Your task to perform on an android device: toggle location history Image 0: 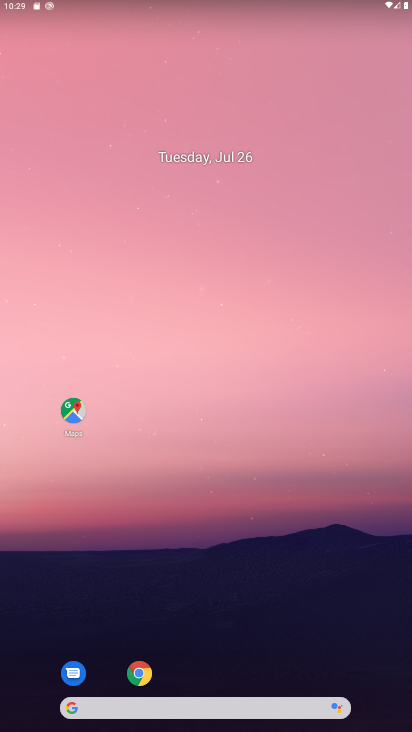
Step 0: drag from (211, 642) to (196, 177)
Your task to perform on an android device: toggle location history Image 1: 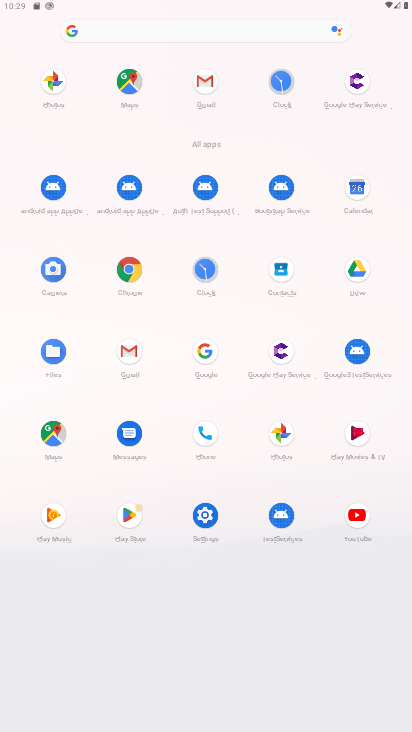
Step 1: click (133, 91)
Your task to perform on an android device: toggle location history Image 2: 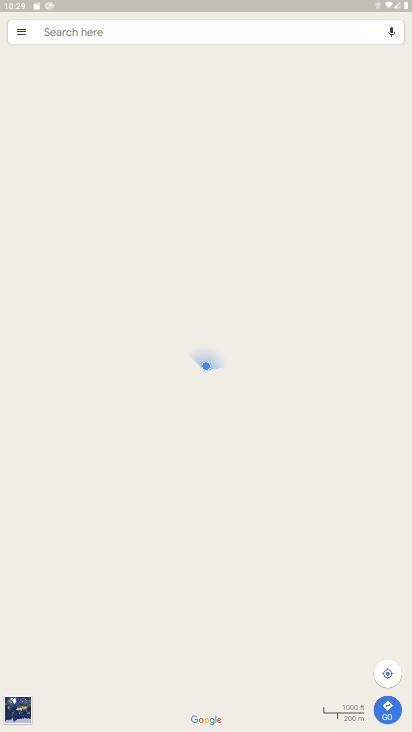
Step 2: click (20, 36)
Your task to perform on an android device: toggle location history Image 3: 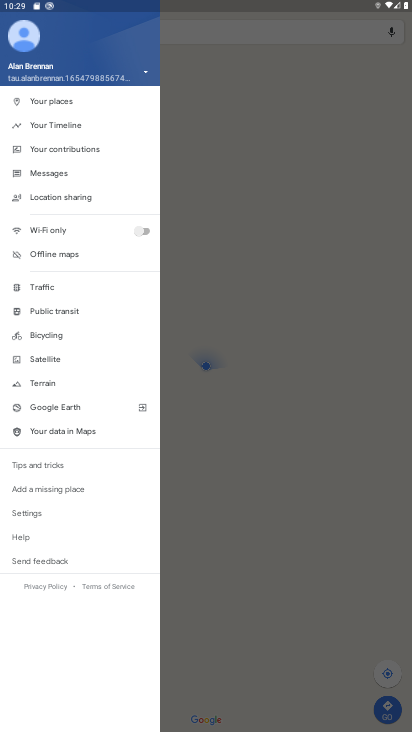
Step 3: click (57, 130)
Your task to perform on an android device: toggle location history Image 4: 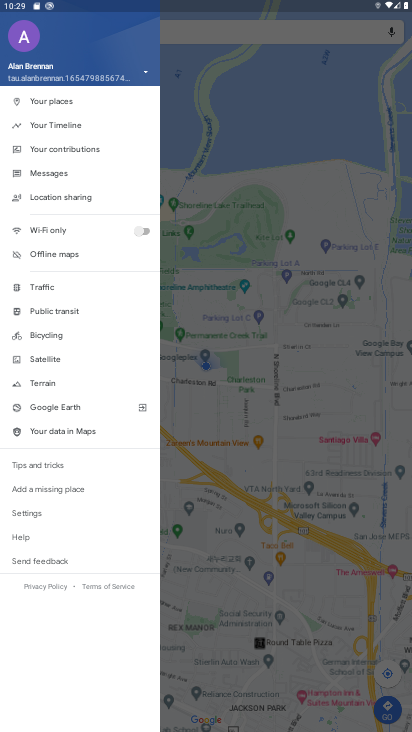
Step 4: click (57, 124)
Your task to perform on an android device: toggle location history Image 5: 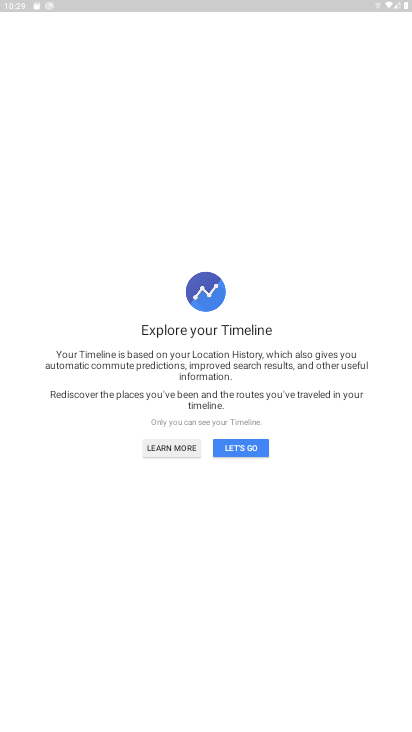
Step 5: click (232, 451)
Your task to perform on an android device: toggle location history Image 6: 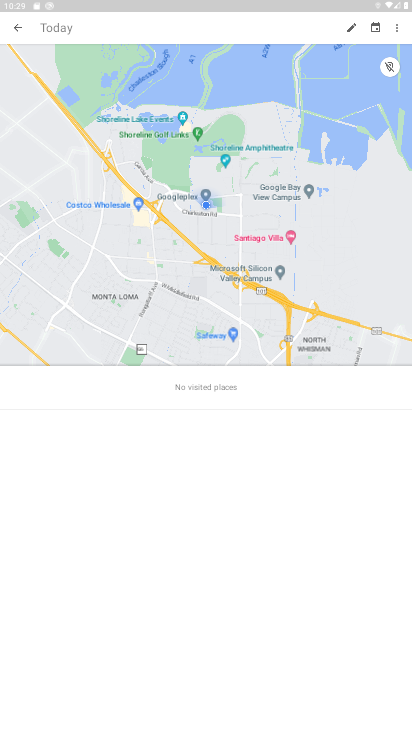
Step 6: click (397, 32)
Your task to perform on an android device: toggle location history Image 7: 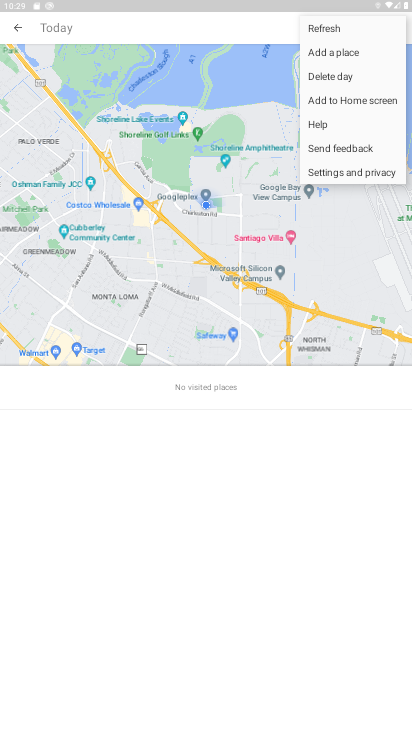
Step 7: click (358, 179)
Your task to perform on an android device: toggle location history Image 8: 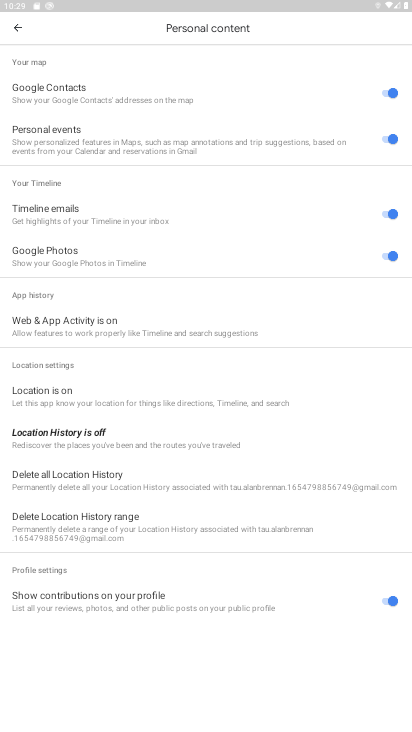
Step 8: click (113, 440)
Your task to perform on an android device: toggle location history Image 9: 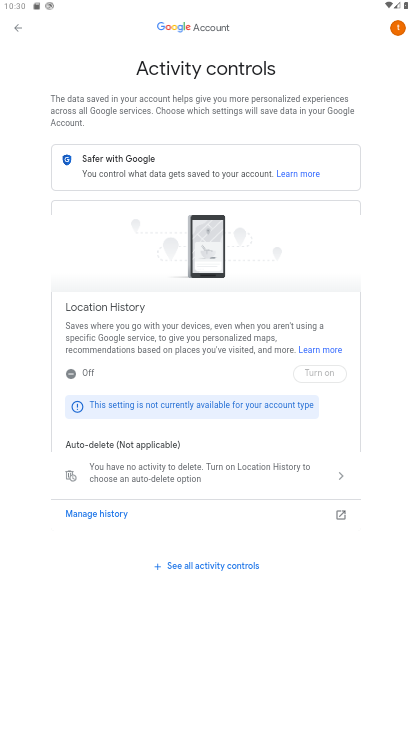
Step 9: task complete